Your task to perform on an android device: turn on data saver in the chrome app Image 0: 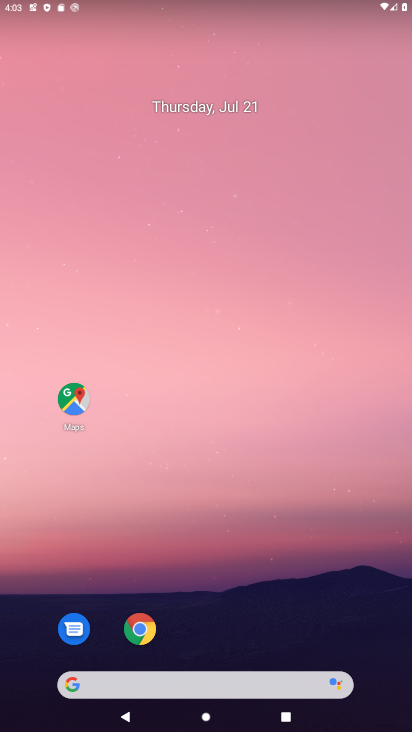
Step 0: drag from (225, 611) to (126, 66)
Your task to perform on an android device: turn on data saver in the chrome app Image 1: 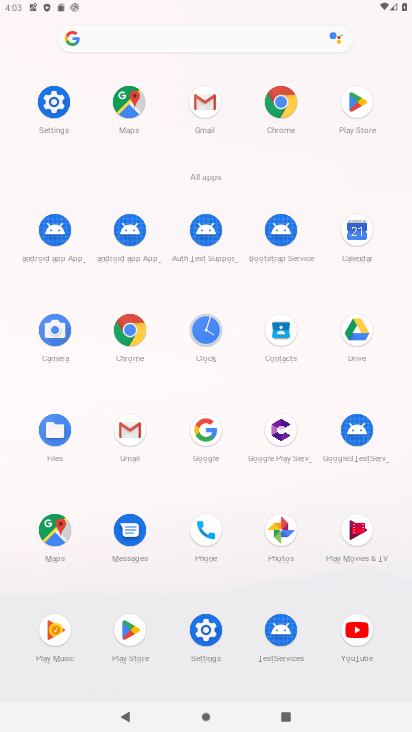
Step 1: click (283, 102)
Your task to perform on an android device: turn on data saver in the chrome app Image 2: 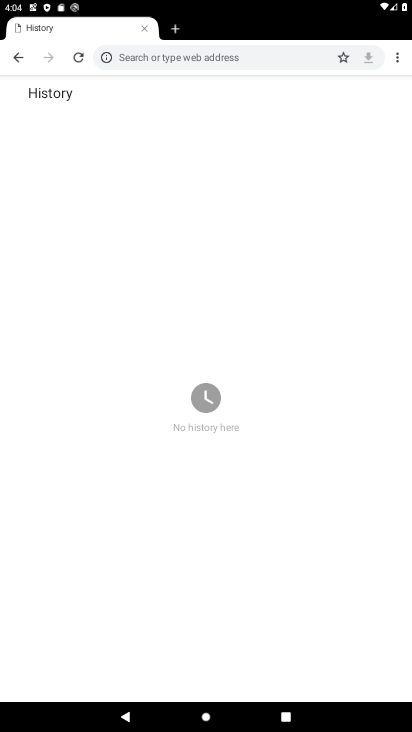
Step 2: drag from (399, 56) to (270, 270)
Your task to perform on an android device: turn on data saver in the chrome app Image 3: 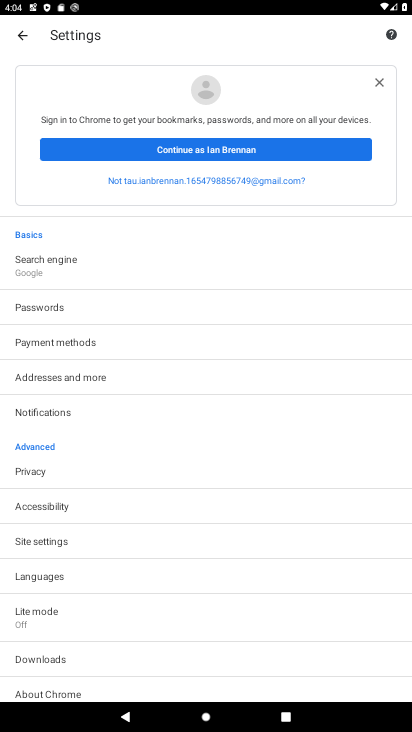
Step 3: click (86, 614)
Your task to perform on an android device: turn on data saver in the chrome app Image 4: 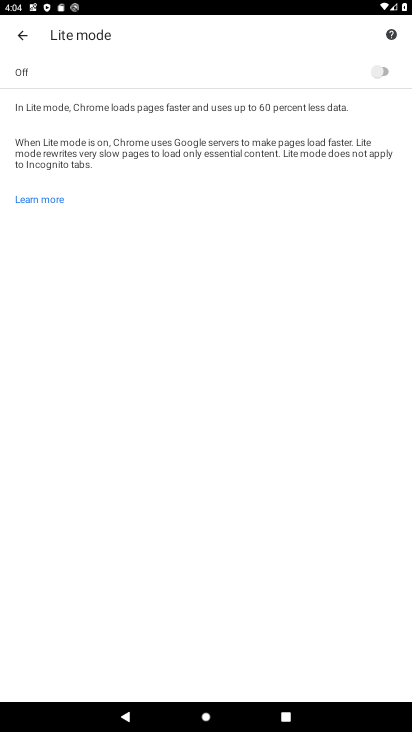
Step 4: click (380, 77)
Your task to perform on an android device: turn on data saver in the chrome app Image 5: 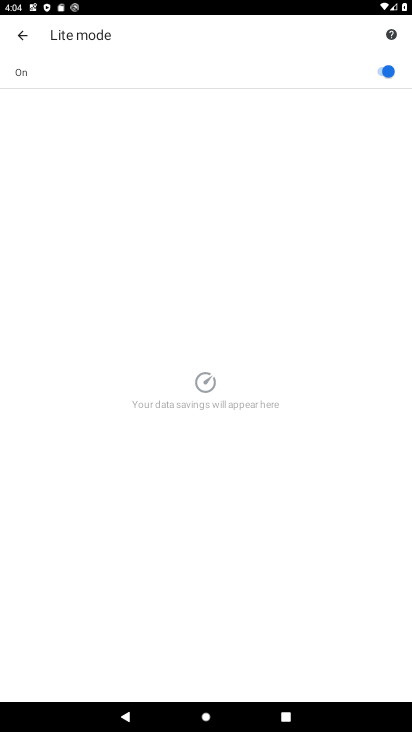
Step 5: task complete